Your task to perform on an android device: Do I have any events today? Image 0: 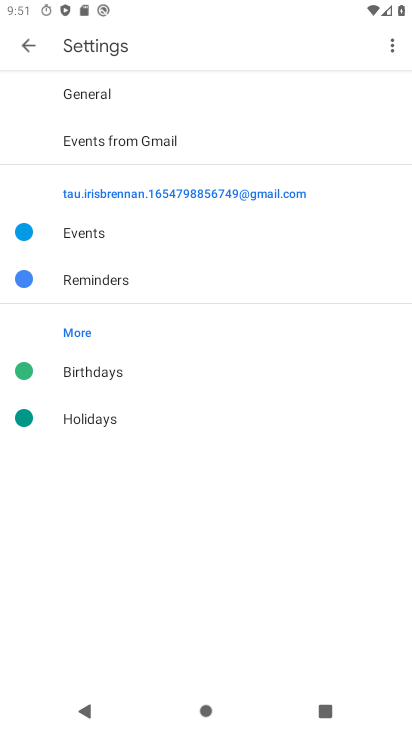
Step 0: press home button
Your task to perform on an android device: Do I have any events today? Image 1: 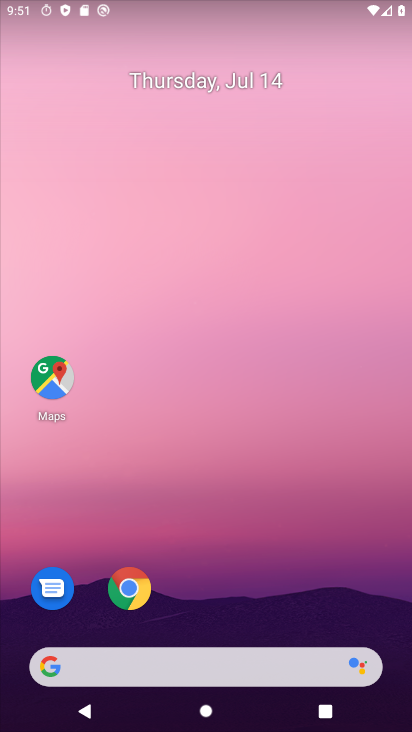
Step 1: drag from (186, 655) to (161, 332)
Your task to perform on an android device: Do I have any events today? Image 2: 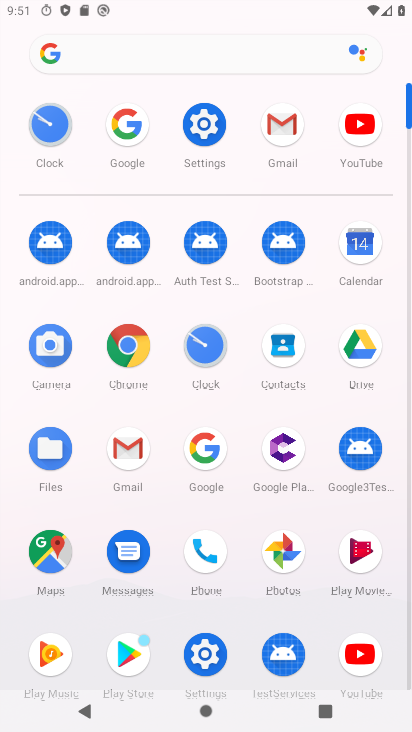
Step 2: click (350, 247)
Your task to perform on an android device: Do I have any events today? Image 3: 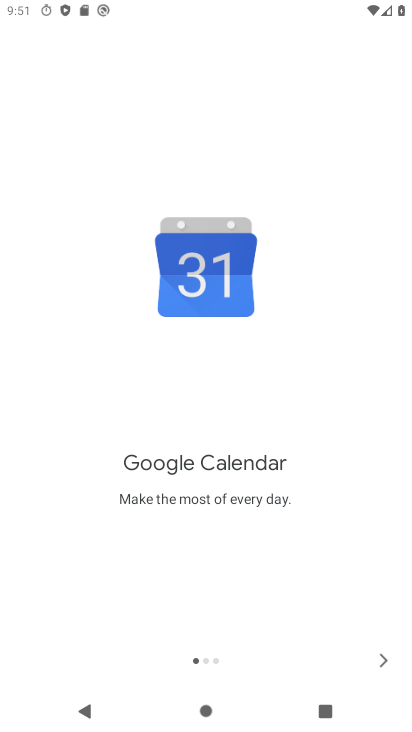
Step 3: click (377, 669)
Your task to perform on an android device: Do I have any events today? Image 4: 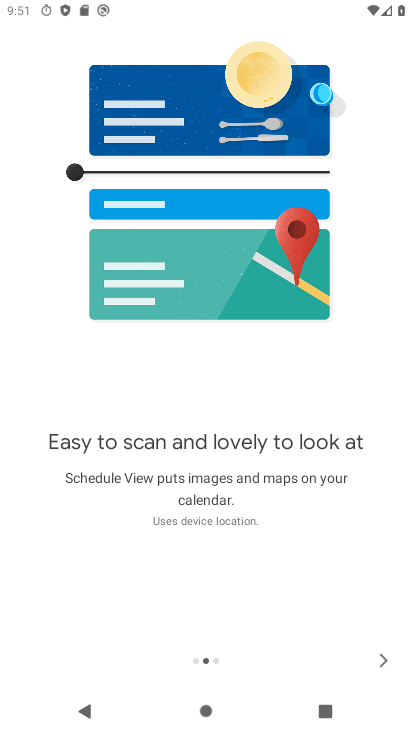
Step 4: click (376, 668)
Your task to perform on an android device: Do I have any events today? Image 5: 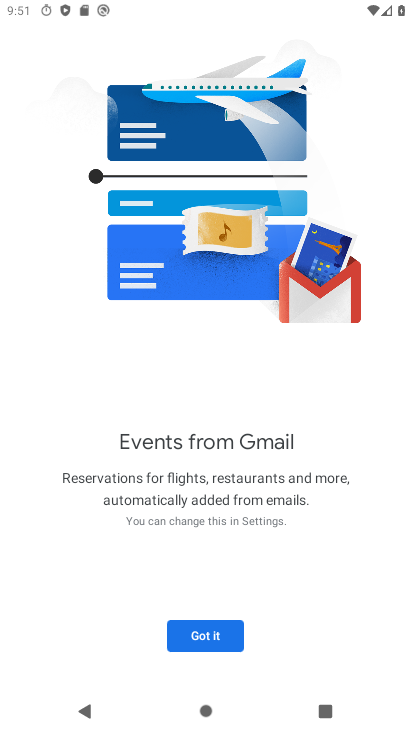
Step 5: click (210, 636)
Your task to perform on an android device: Do I have any events today? Image 6: 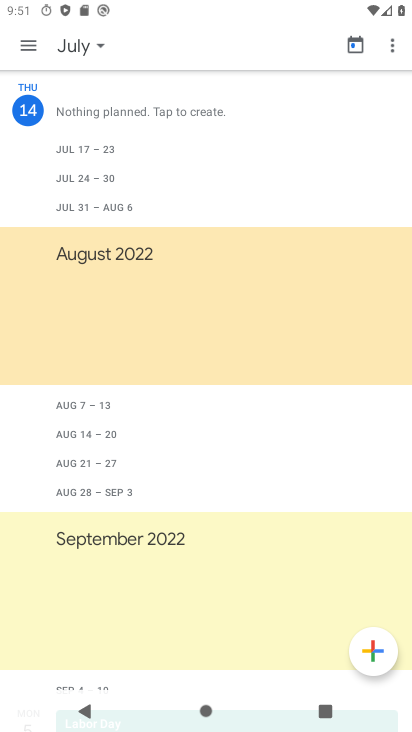
Step 6: task complete